Your task to perform on an android device: open wifi settings Image 0: 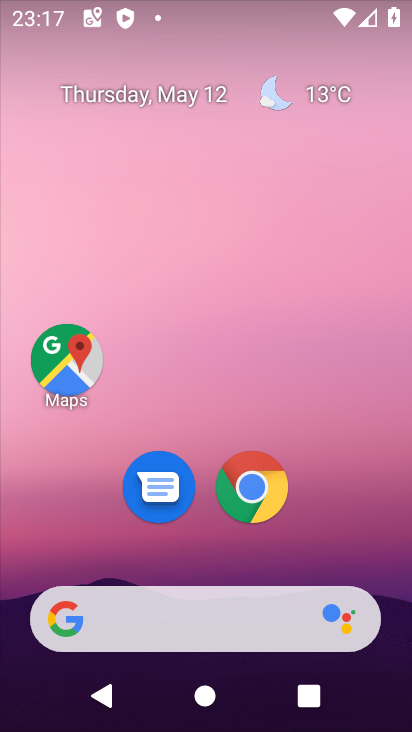
Step 0: drag from (217, 0) to (248, 462)
Your task to perform on an android device: open wifi settings Image 1: 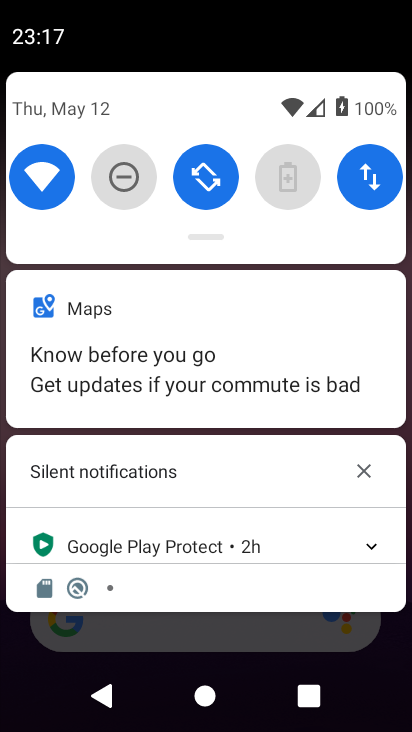
Step 1: click (65, 184)
Your task to perform on an android device: open wifi settings Image 2: 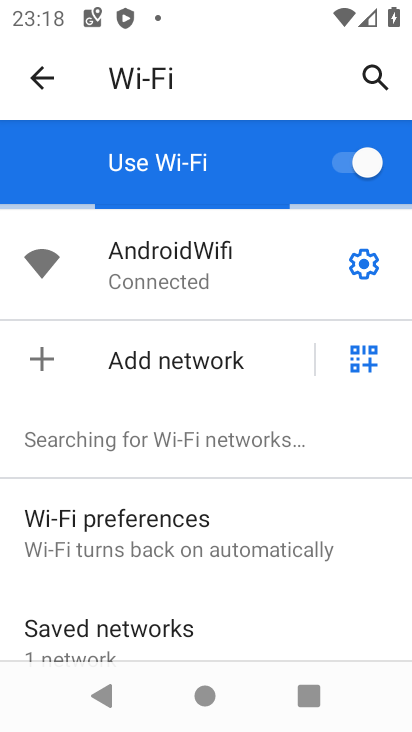
Step 2: task complete